Your task to perform on an android device: Show me the best rated vacuum on Walmart. Image 0: 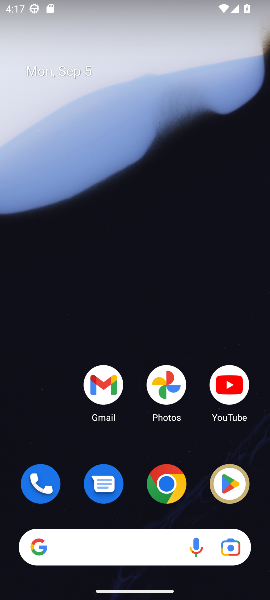
Step 0: click (169, 497)
Your task to perform on an android device: Show me the best rated vacuum on Walmart. Image 1: 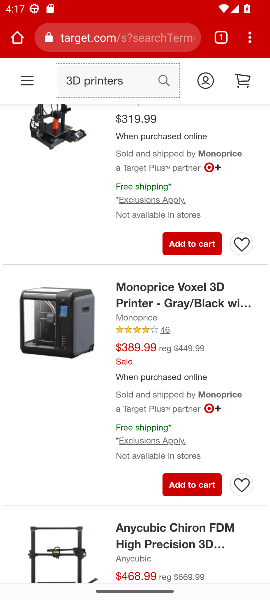
Step 1: click (146, 34)
Your task to perform on an android device: Show me the best rated vacuum on Walmart. Image 2: 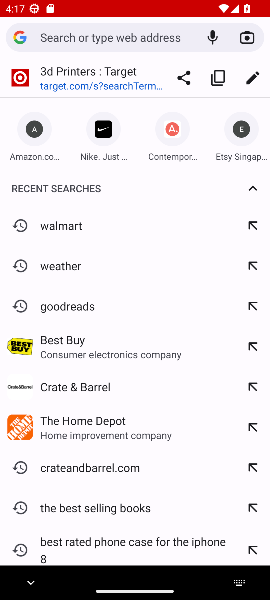
Step 2: type "Walmart"
Your task to perform on an android device: Show me the best rated vacuum on Walmart. Image 3: 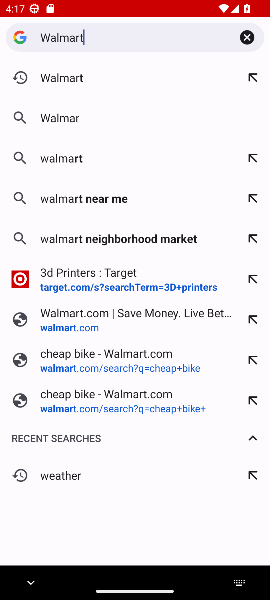
Step 3: press enter
Your task to perform on an android device: Show me the best rated vacuum on Walmart. Image 4: 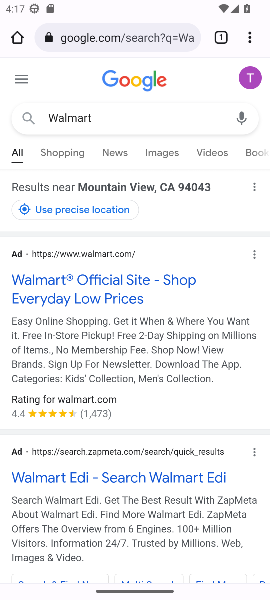
Step 4: drag from (114, 514) to (214, 224)
Your task to perform on an android device: Show me the best rated vacuum on Walmart. Image 5: 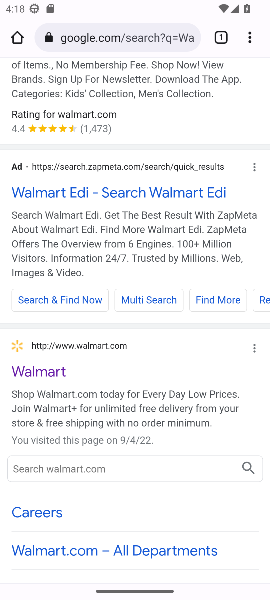
Step 5: click (52, 375)
Your task to perform on an android device: Show me the best rated vacuum on Walmart. Image 6: 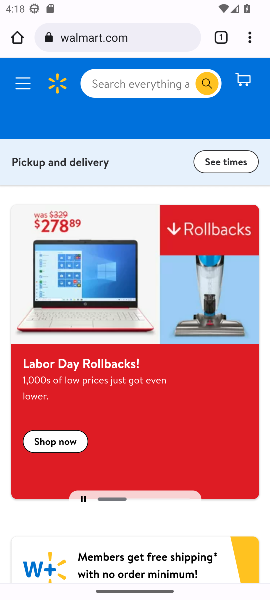
Step 6: click (106, 77)
Your task to perform on an android device: Show me the best rated vacuum on Walmart. Image 7: 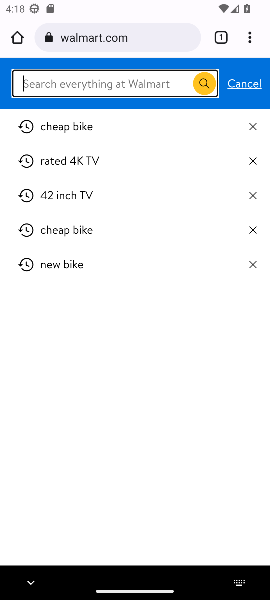
Step 7: type "vacuum"
Your task to perform on an android device: Show me the best rated vacuum on Walmart. Image 8: 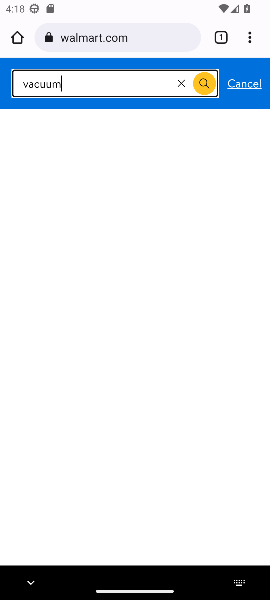
Step 8: press enter
Your task to perform on an android device: Show me the best rated vacuum on Walmart. Image 9: 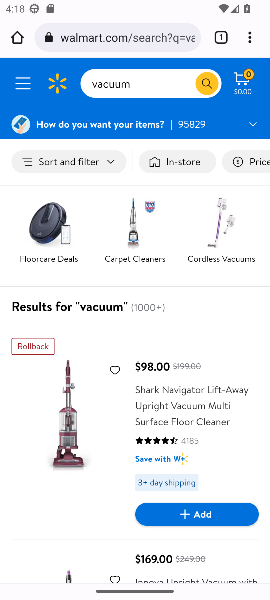
Step 9: task complete